Your task to perform on an android device: Open location settings Image 0: 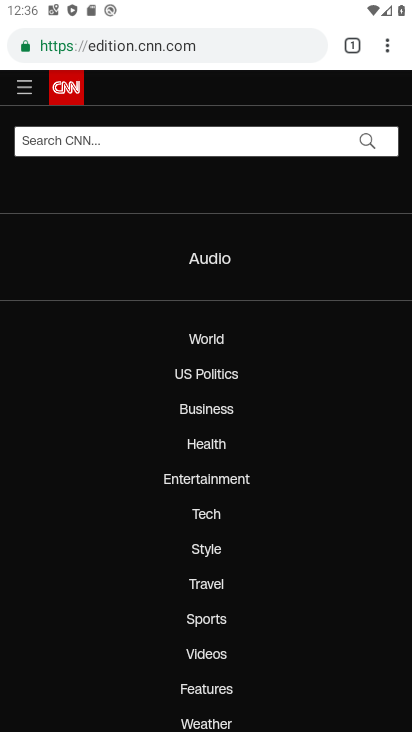
Step 0: press home button
Your task to perform on an android device: Open location settings Image 1: 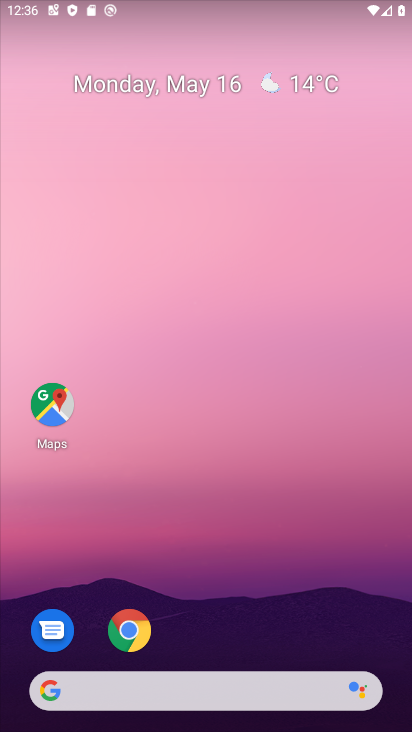
Step 1: drag from (262, 633) to (258, 207)
Your task to perform on an android device: Open location settings Image 2: 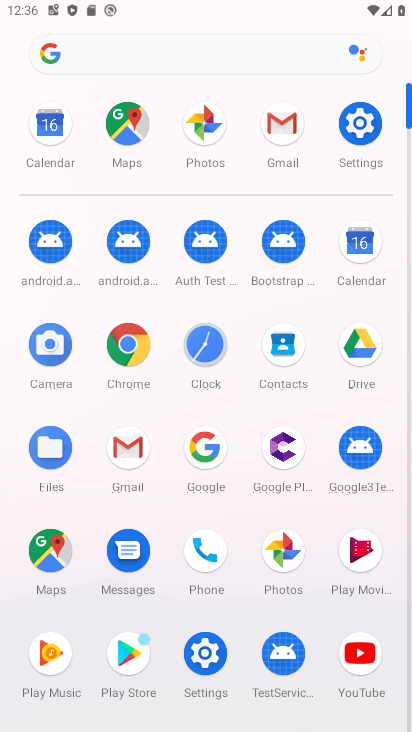
Step 2: click (212, 665)
Your task to perform on an android device: Open location settings Image 3: 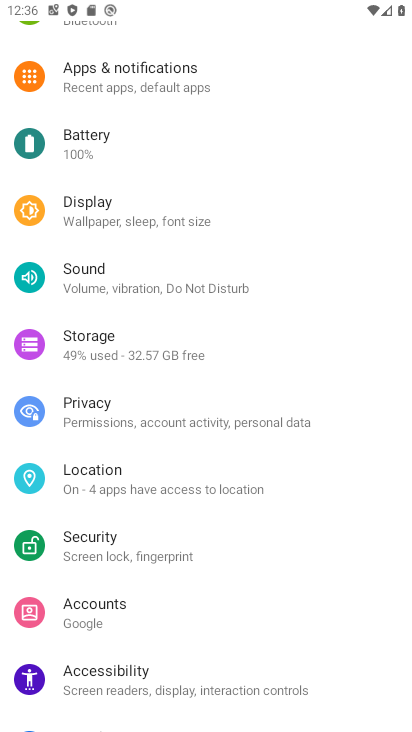
Step 3: click (159, 485)
Your task to perform on an android device: Open location settings Image 4: 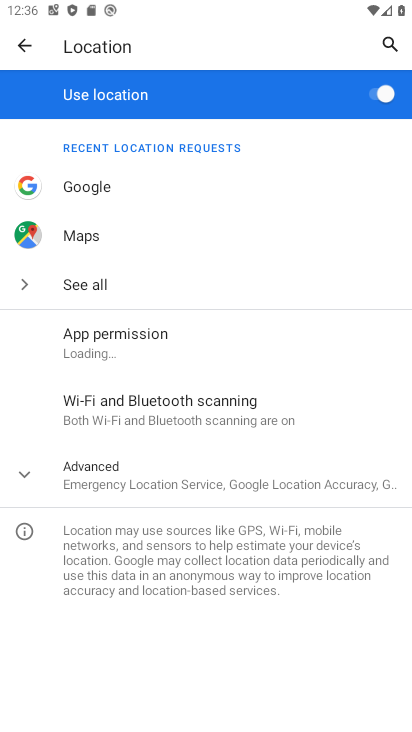
Step 4: task complete